Your task to perform on an android device: visit the assistant section in the google photos Image 0: 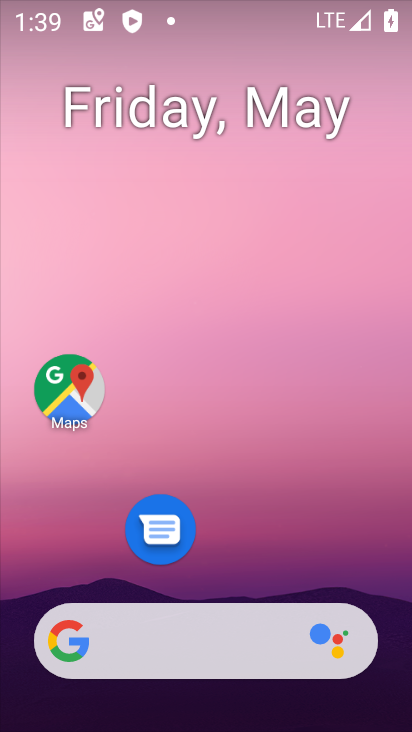
Step 0: drag from (223, 505) to (223, 239)
Your task to perform on an android device: visit the assistant section in the google photos Image 1: 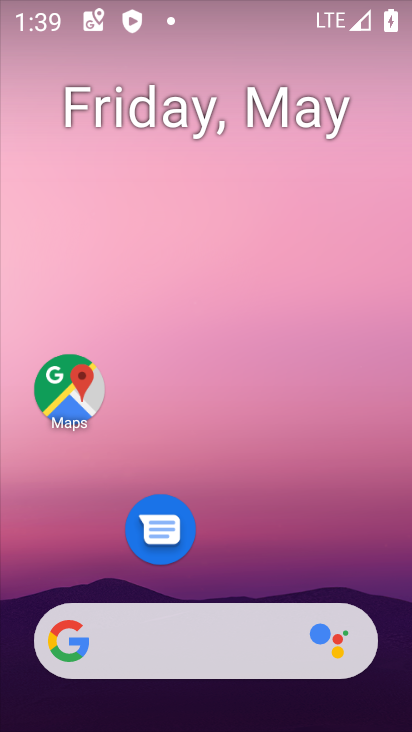
Step 1: drag from (215, 575) to (234, 215)
Your task to perform on an android device: visit the assistant section in the google photos Image 2: 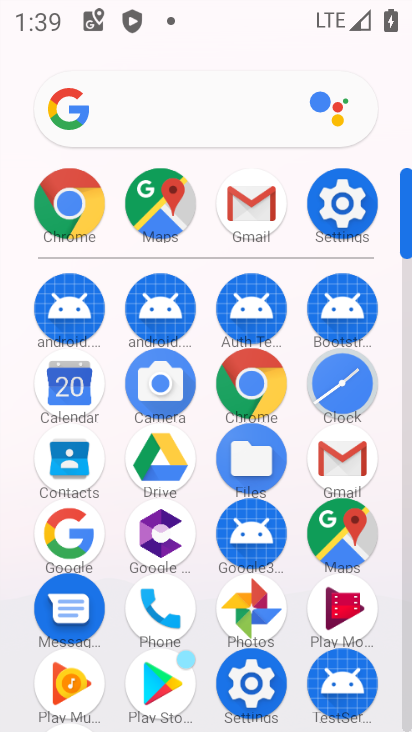
Step 2: click (252, 610)
Your task to perform on an android device: visit the assistant section in the google photos Image 3: 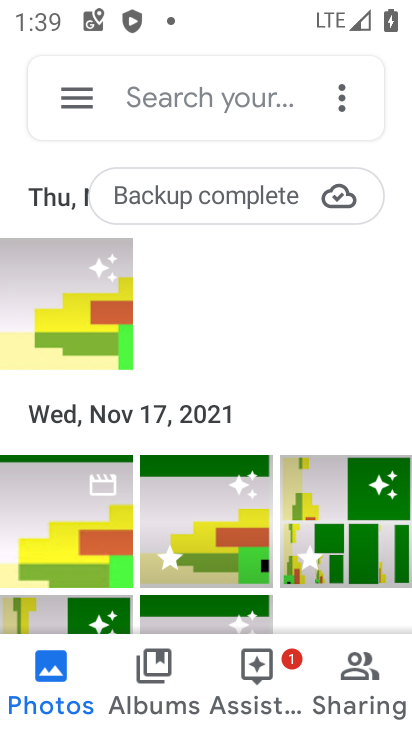
Step 3: click (238, 683)
Your task to perform on an android device: visit the assistant section in the google photos Image 4: 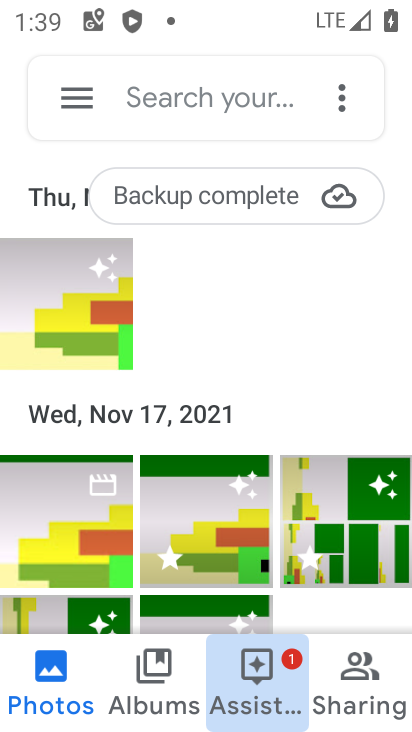
Step 4: task complete